Your task to perform on an android device: Go to display settings Image 0: 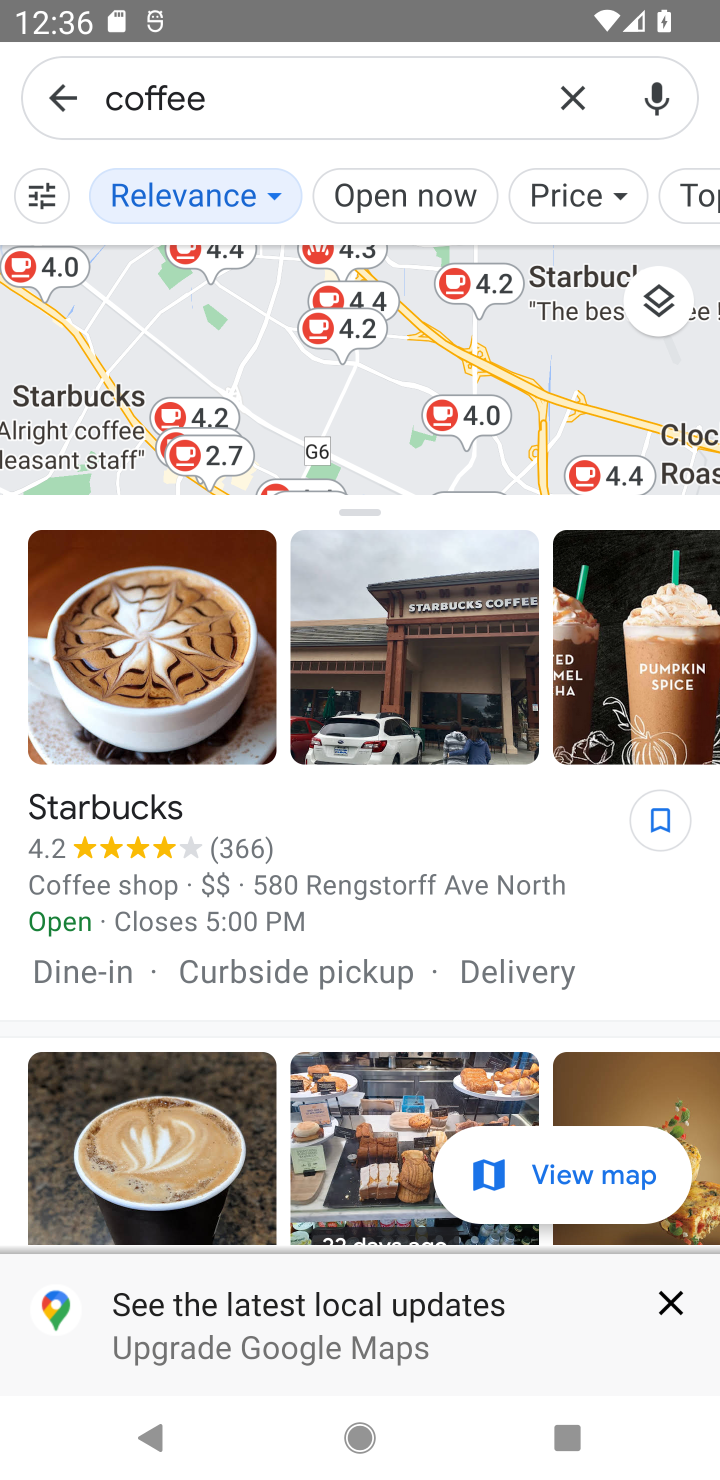
Step 0: press home button
Your task to perform on an android device: Go to display settings Image 1: 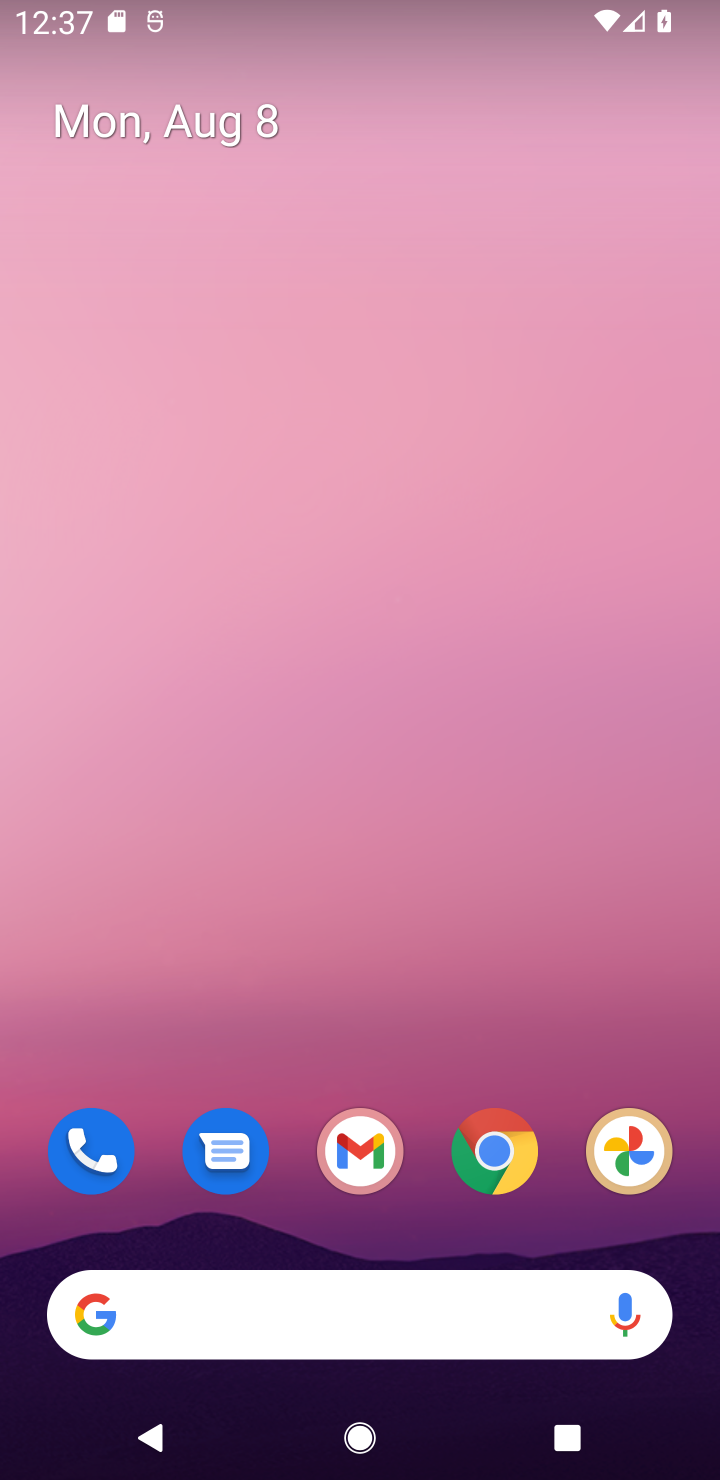
Step 1: drag from (286, 1260) to (255, 268)
Your task to perform on an android device: Go to display settings Image 2: 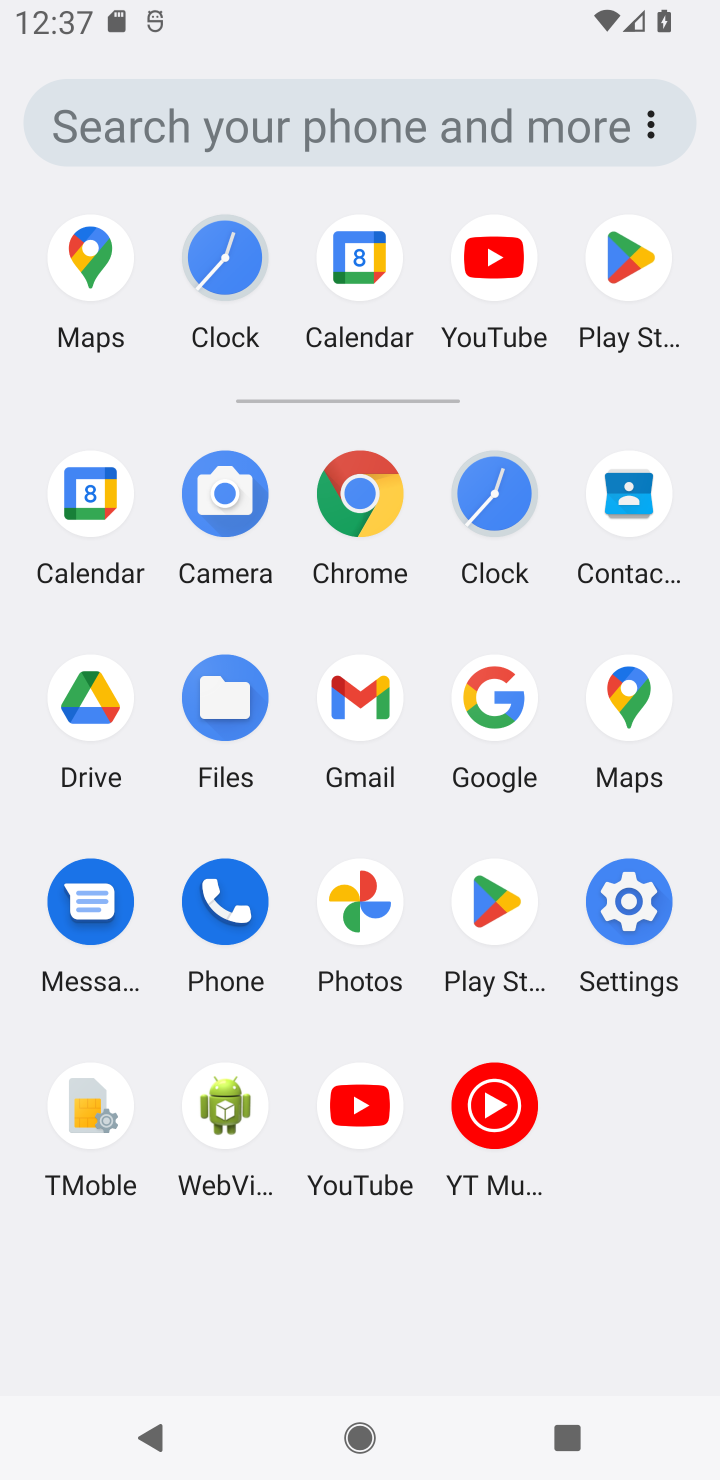
Step 2: click (634, 891)
Your task to perform on an android device: Go to display settings Image 3: 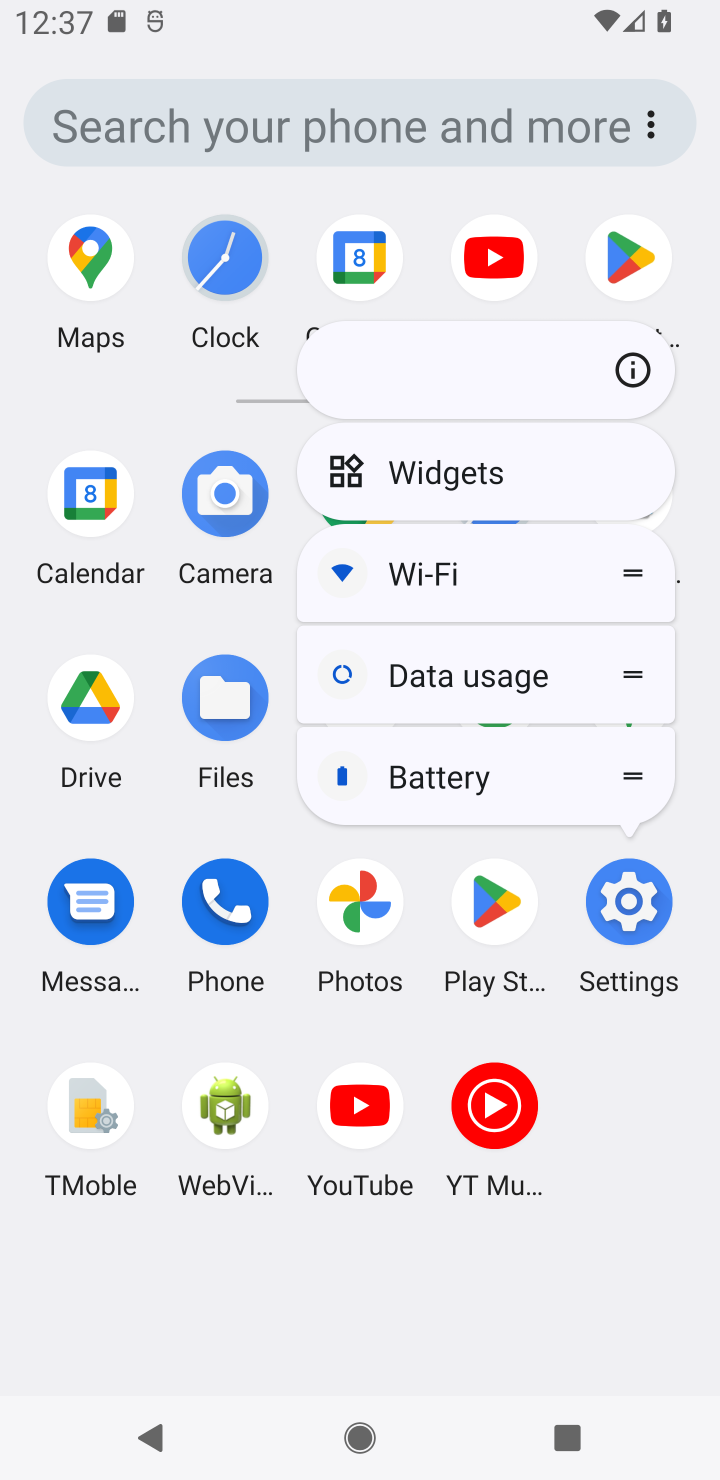
Step 3: click (626, 891)
Your task to perform on an android device: Go to display settings Image 4: 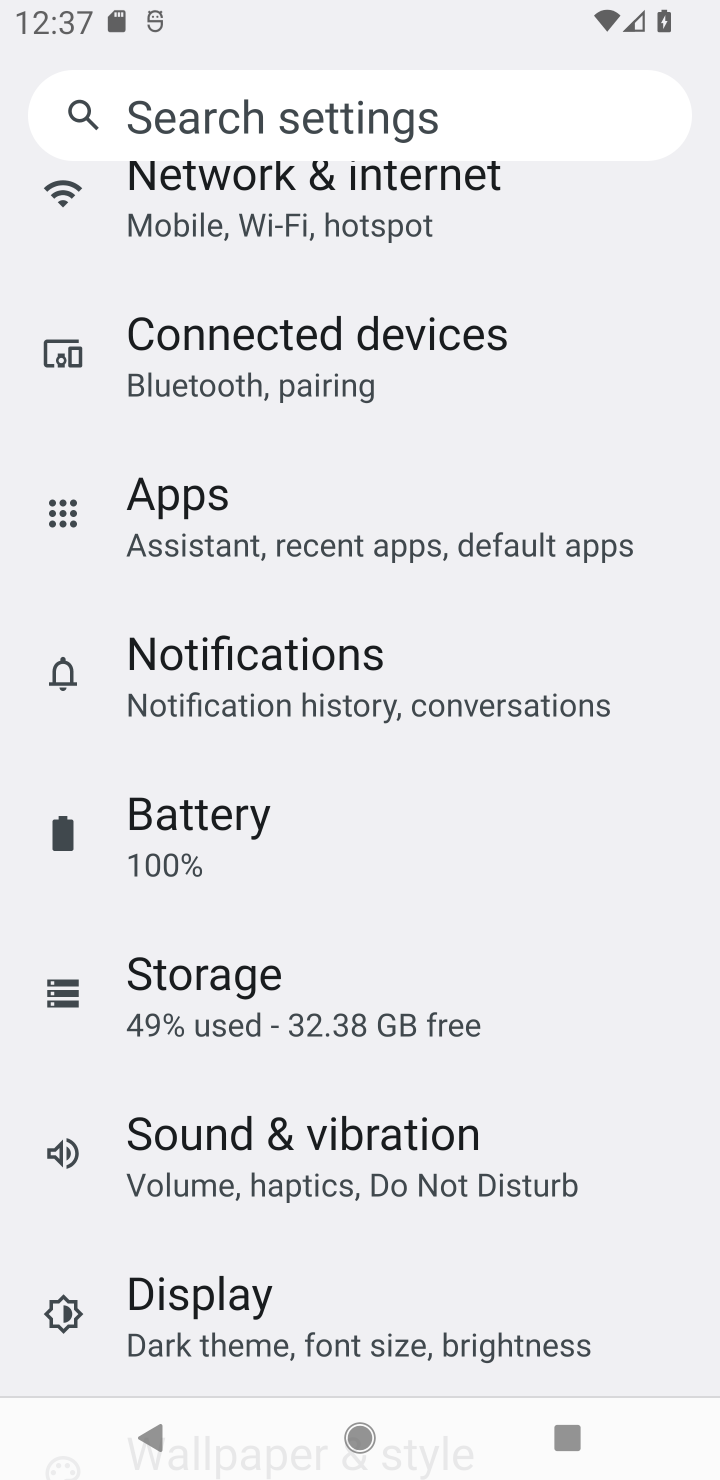
Step 4: drag from (374, 1139) to (298, 294)
Your task to perform on an android device: Go to display settings Image 5: 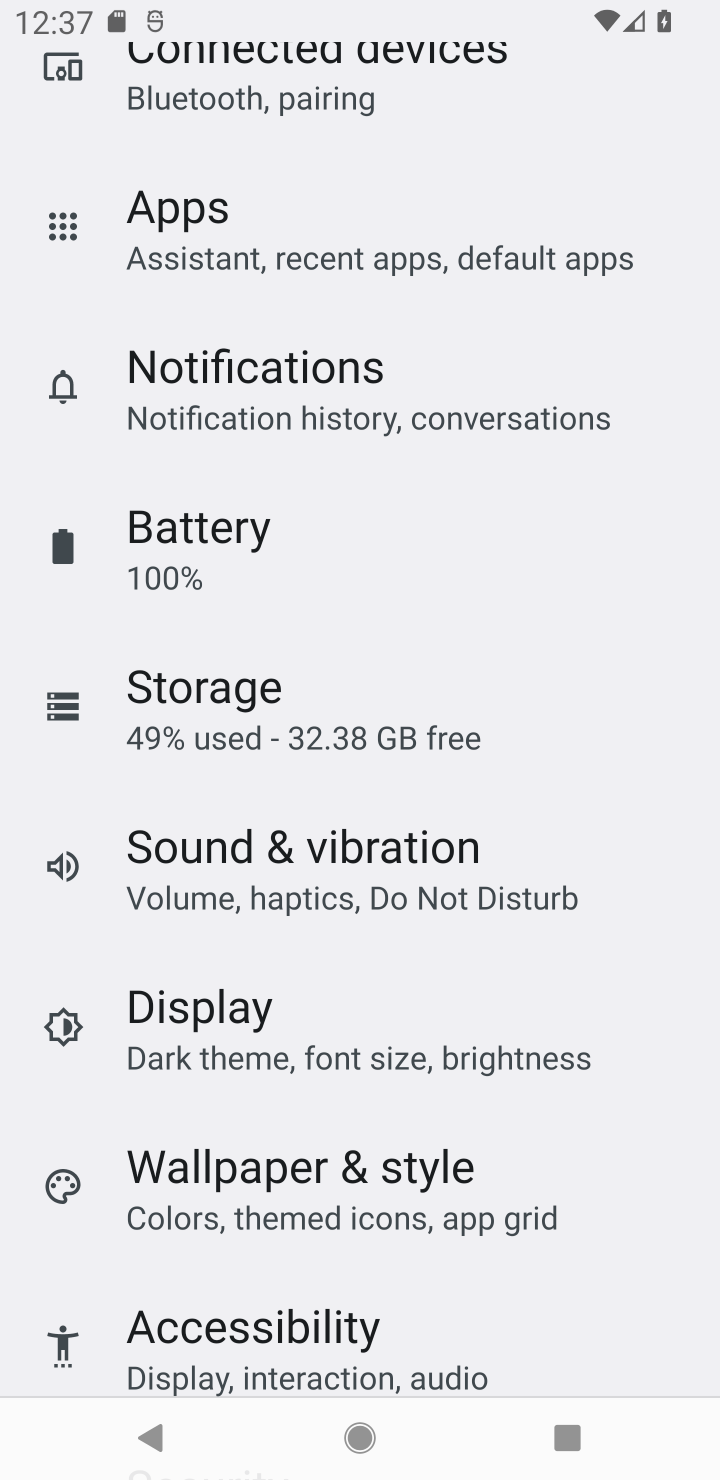
Step 5: drag from (400, 1129) to (278, 185)
Your task to perform on an android device: Go to display settings Image 6: 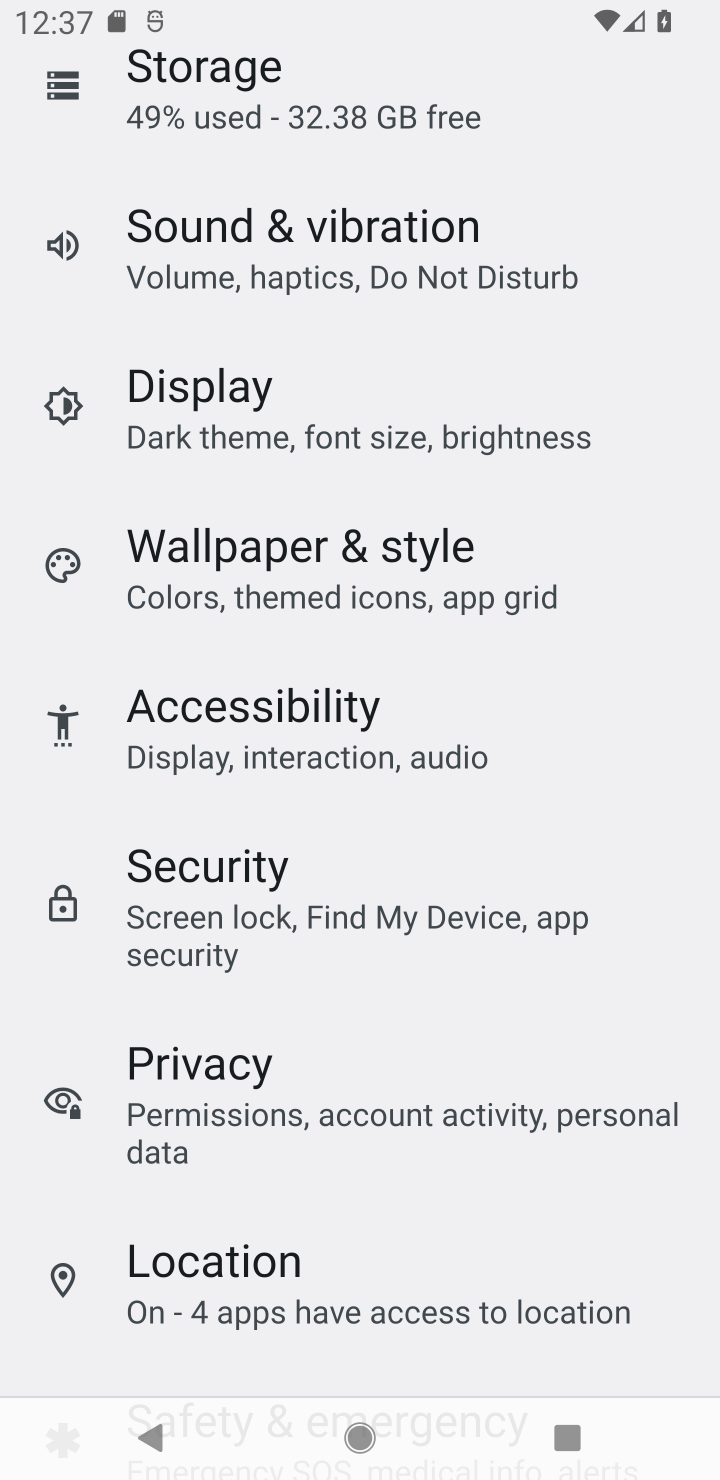
Step 6: click (252, 411)
Your task to perform on an android device: Go to display settings Image 7: 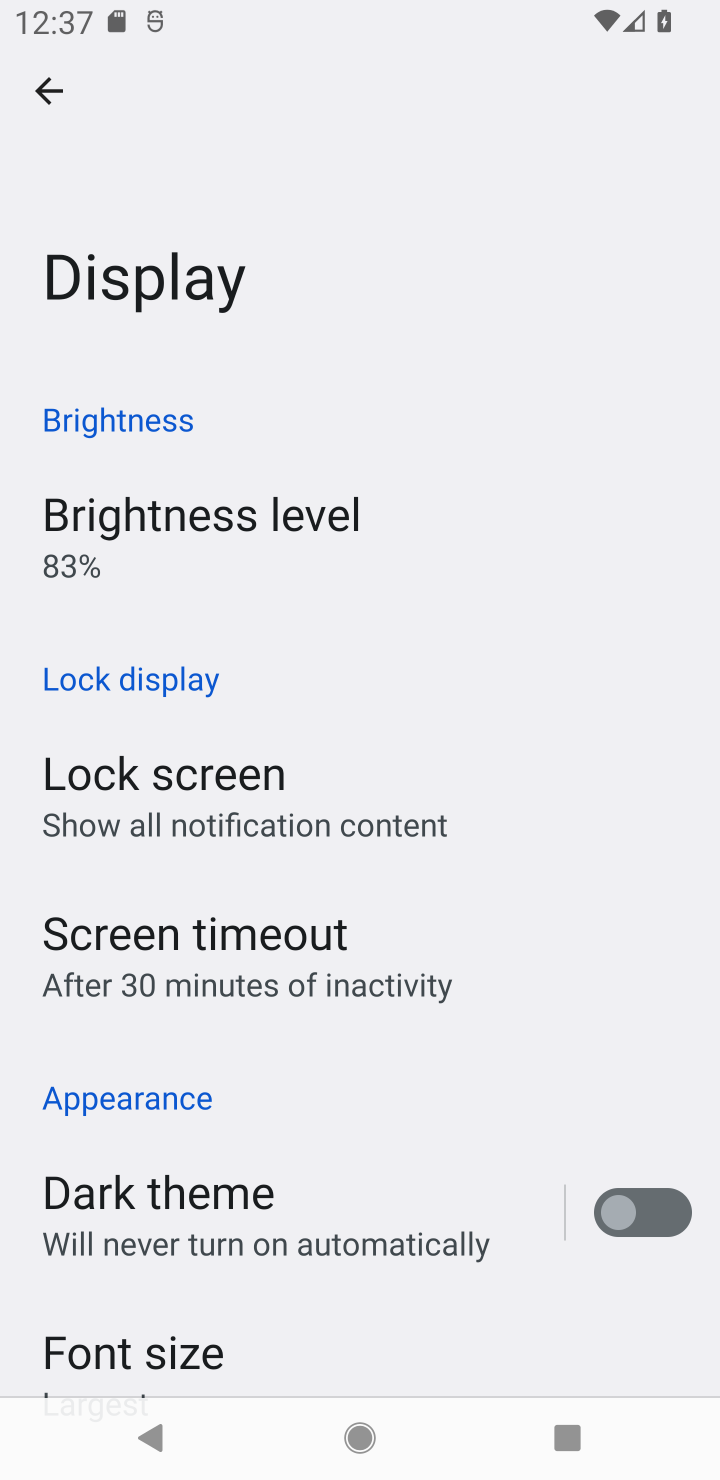
Step 7: task complete